Your task to perform on an android device: Open Google Chrome and open the bookmarks view Image 0: 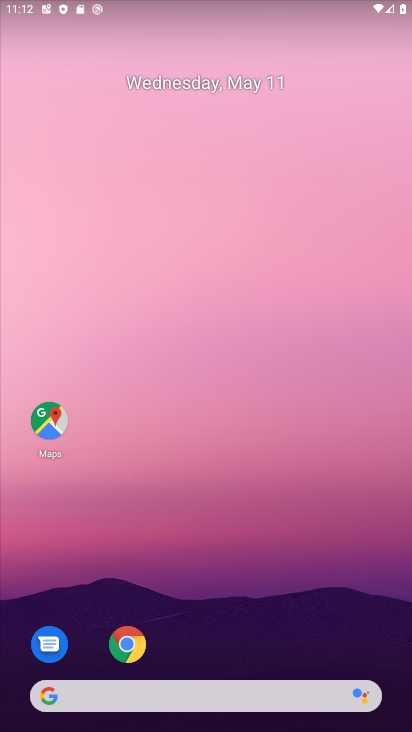
Step 0: click (361, 585)
Your task to perform on an android device: Open Google Chrome and open the bookmarks view Image 1: 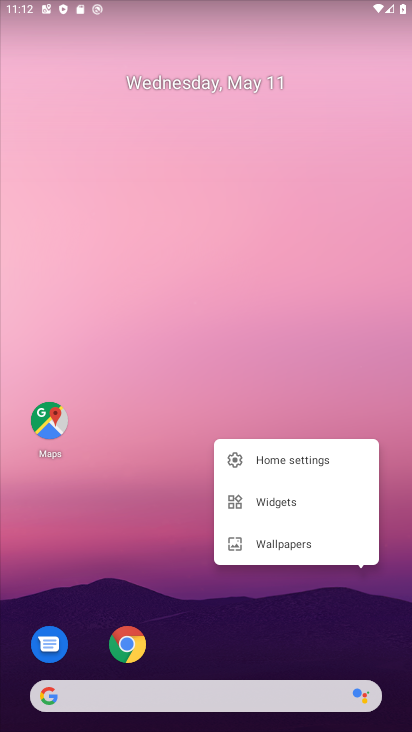
Step 1: click (129, 631)
Your task to perform on an android device: Open Google Chrome and open the bookmarks view Image 2: 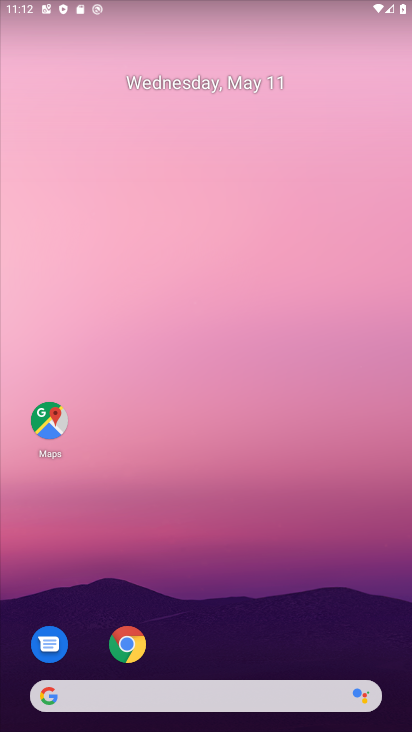
Step 2: click (127, 639)
Your task to perform on an android device: Open Google Chrome and open the bookmarks view Image 3: 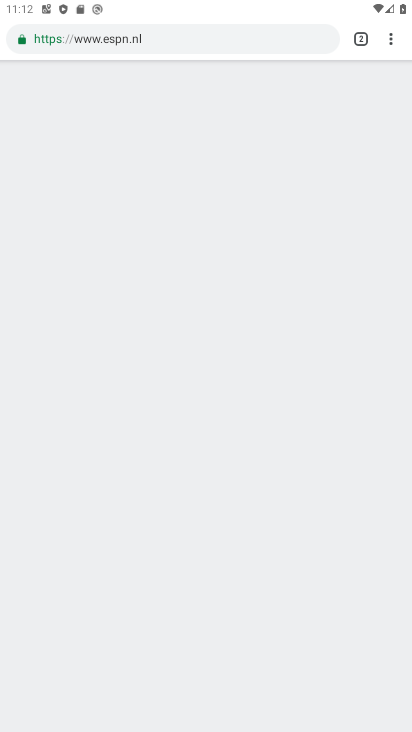
Step 3: click (397, 37)
Your task to perform on an android device: Open Google Chrome and open the bookmarks view Image 4: 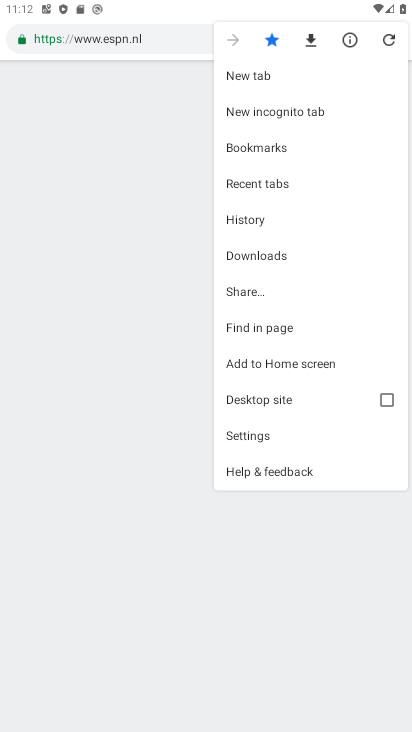
Step 4: click (290, 150)
Your task to perform on an android device: Open Google Chrome and open the bookmarks view Image 5: 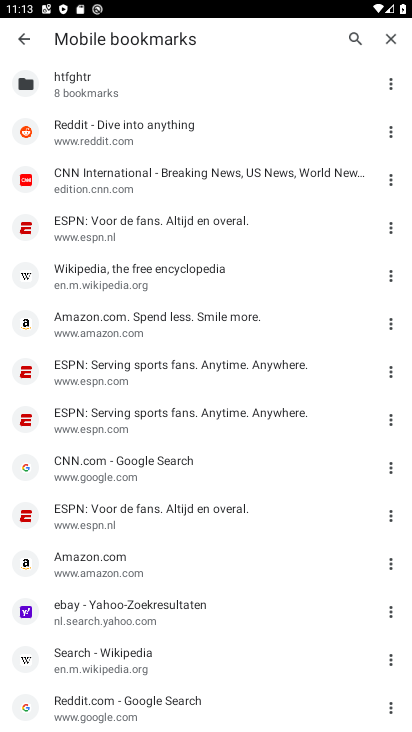
Step 5: click (185, 464)
Your task to perform on an android device: Open Google Chrome and open the bookmarks view Image 6: 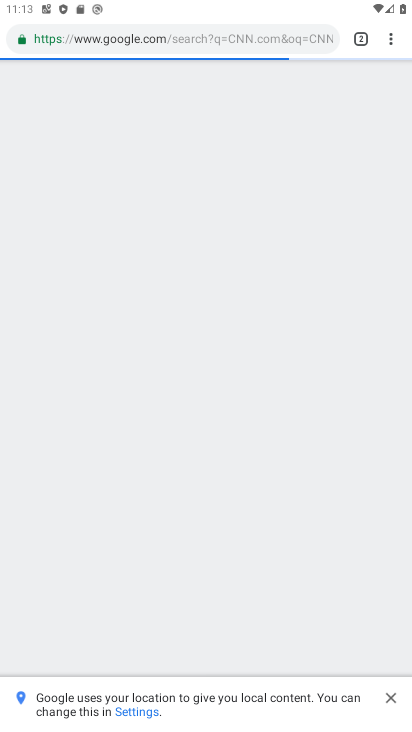
Step 6: task complete